Your task to perform on an android device: turn on translation in the chrome app Image 0: 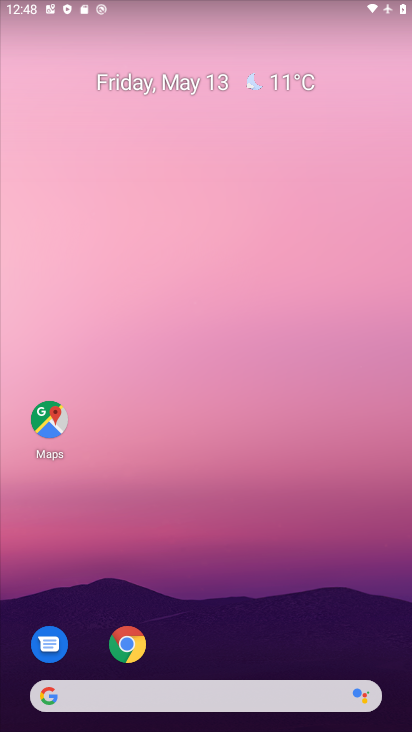
Step 0: click (128, 644)
Your task to perform on an android device: turn on translation in the chrome app Image 1: 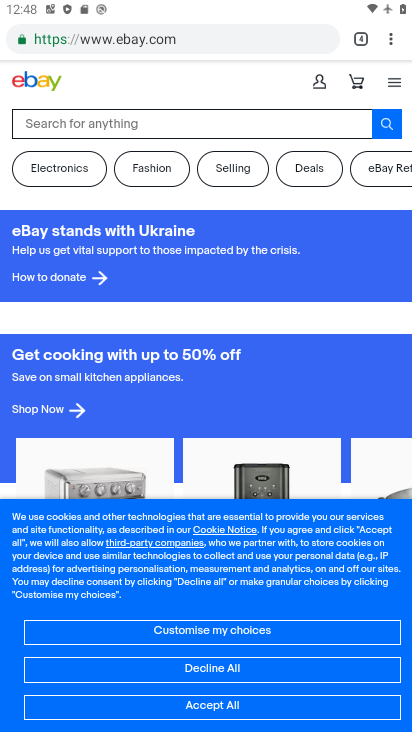
Step 1: click (392, 42)
Your task to perform on an android device: turn on translation in the chrome app Image 2: 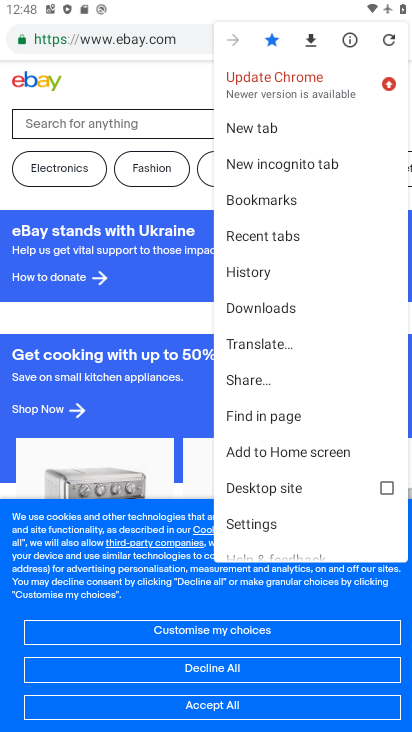
Step 2: click (255, 517)
Your task to perform on an android device: turn on translation in the chrome app Image 3: 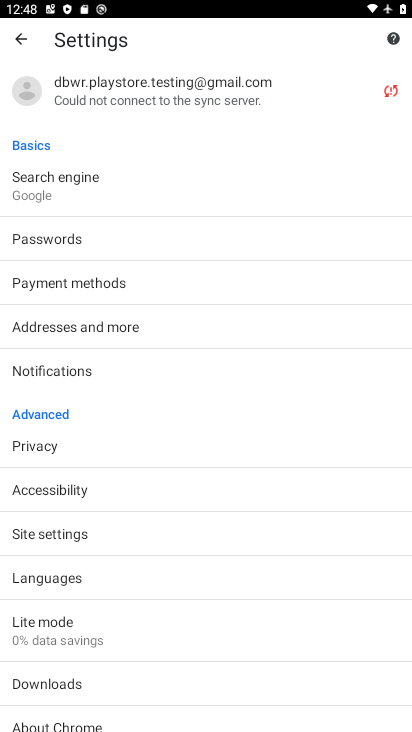
Step 3: click (47, 577)
Your task to perform on an android device: turn on translation in the chrome app Image 4: 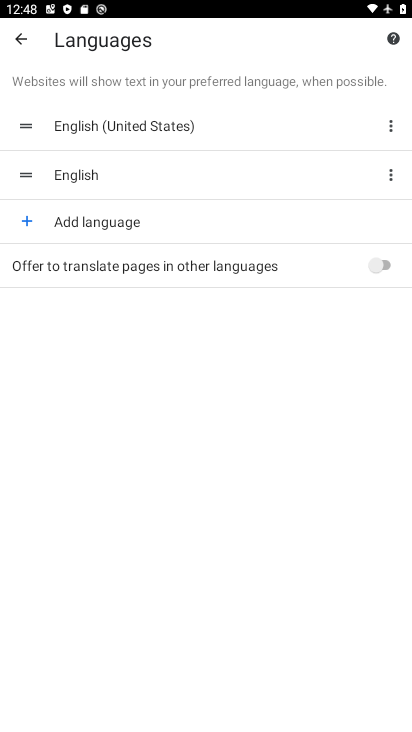
Step 4: click (382, 264)
Your task to perform on an android device: turn on translation in the chrome app Image 5: 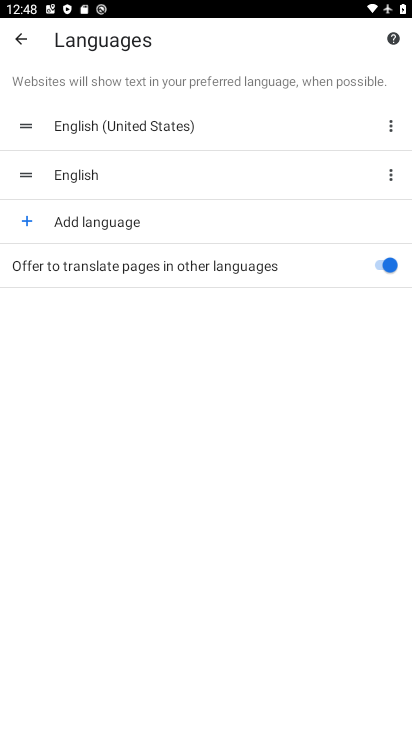
Step 5: task complete